Your task to perform on an android device: Open maps Image 0: 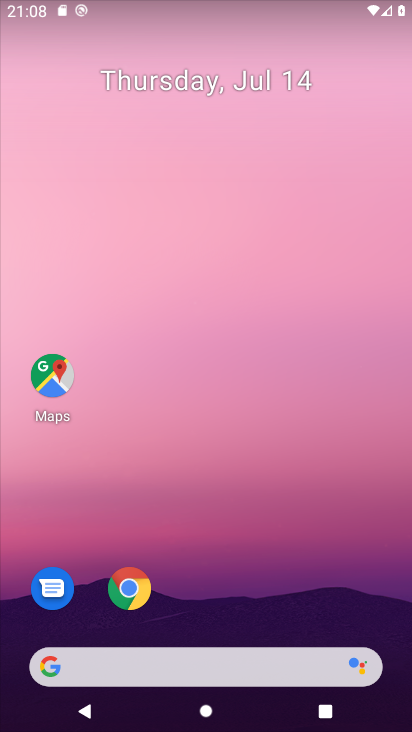
Step 0: drag from (303, 583) to (333, 94)
Your task to perform on an android device: Open maps Image 1: 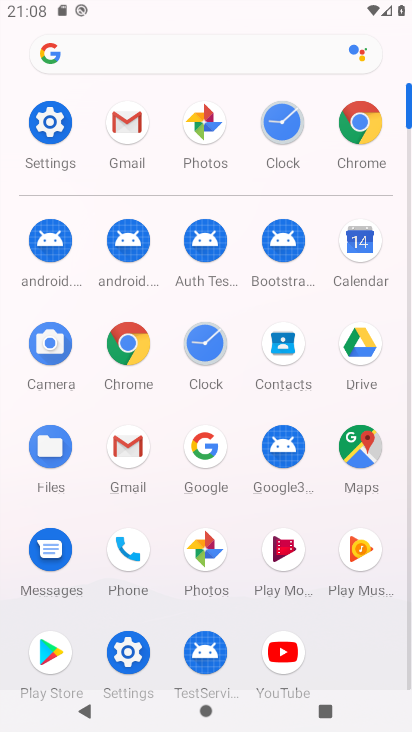
Step 1: click (349, 446)
Your task to perform on an android device: Open maps Image 2: 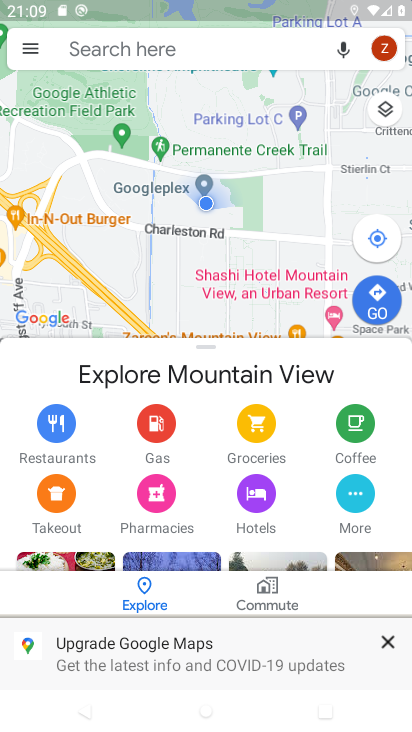
Step 2: task complete